Your task to perform on an android device: Open Google Maps and go to "Timeline" Image 0: 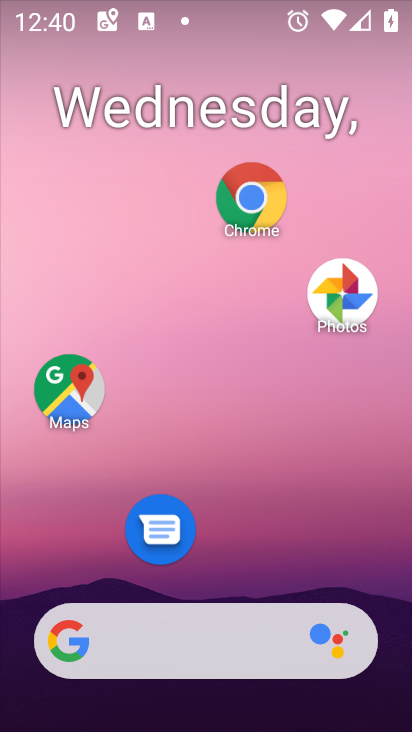
Step 0: drag from (195, 547) to (158, 134)
Your task to perform on an android device: Open Google Maps and go to "Timeline" Image 1: 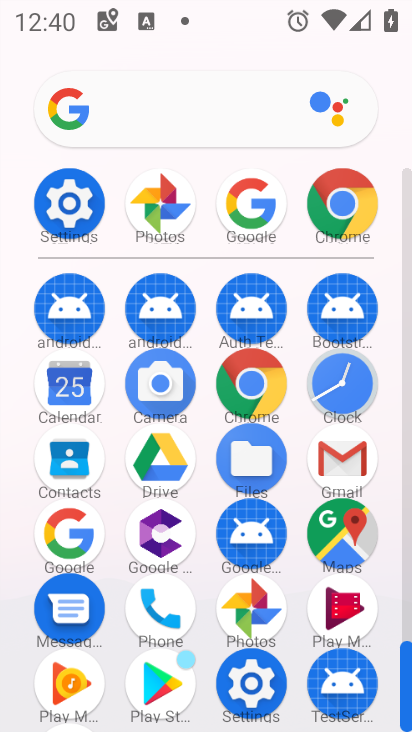
Step 1: click (338, 541)
Your task to perform on an android device: Open Google Maps and go to "Timeline" Image 2: 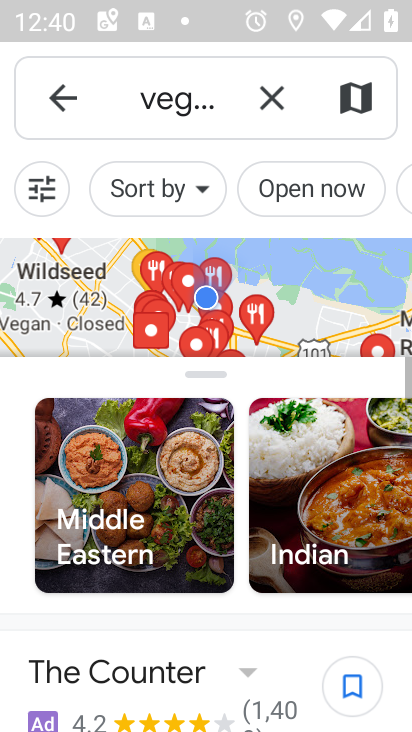
Step 2: click (59, 97)
Your task to perform on an android device: Open Google Maps and go to "Timeline" Image 3: 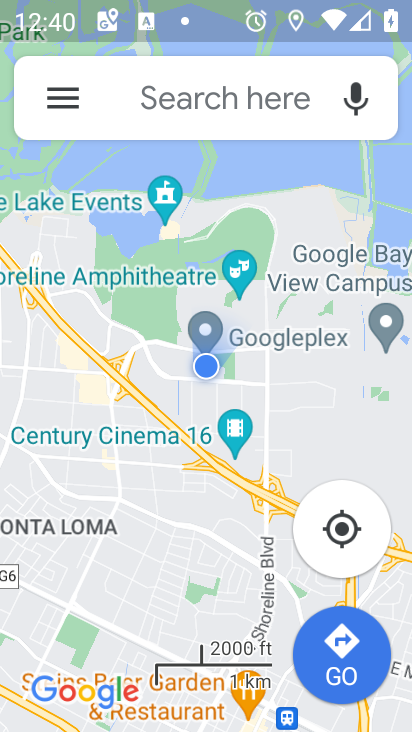
Step 3: click (59, 97)
Your task to perform on an android device: Open Google Maps and go to "Timeline" Image 4: 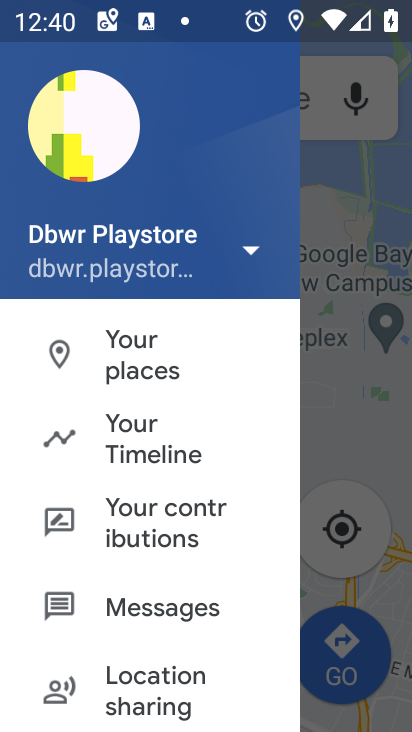
Step 4: click (166, 455)
Your task to perform on an android device: Open Google Maps and go to "Timeline" Image 5: 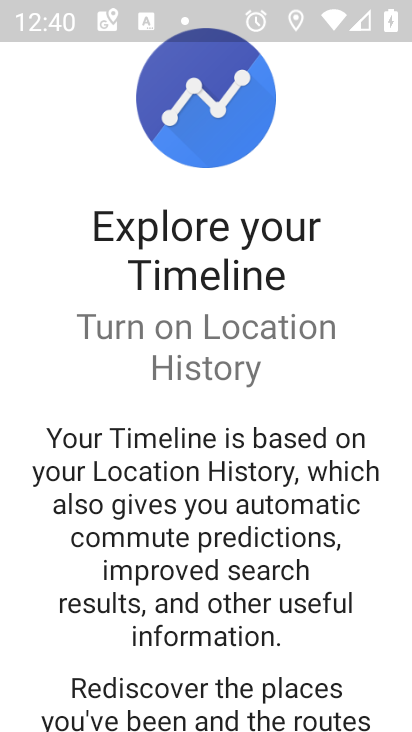
Step 5: drag from (171, 550) to (42, 0)
Your task to perform on an android device: Open Google Maps and go to "Timeline" Image 6: 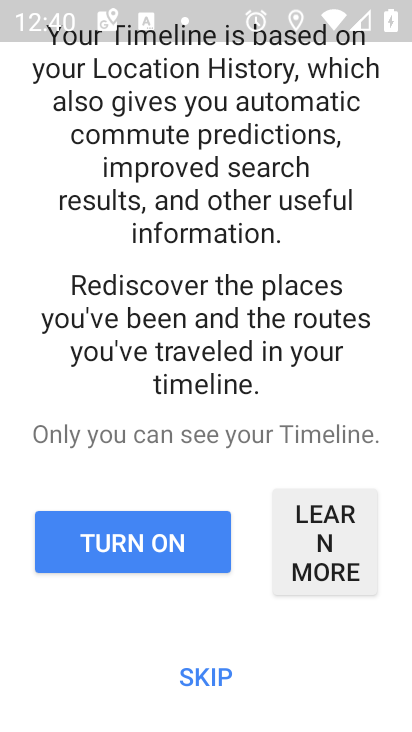
Step 6: click (118, 541)
Your task to perform on an android device: Open Google Maps and go to "Timeline" Image 7: 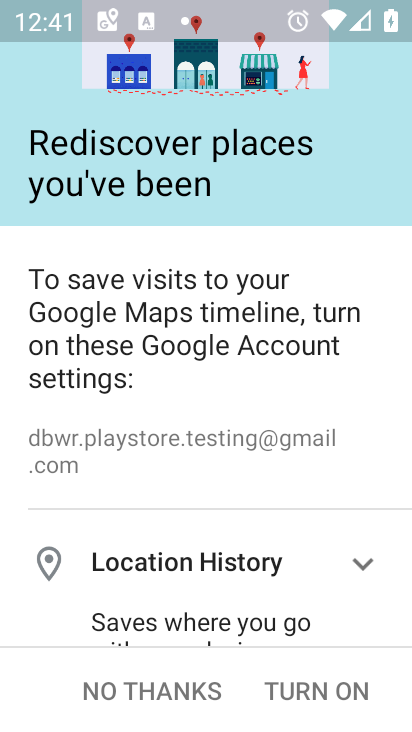
Step 7: click (299, 696)
Your task to perform on an android device: Open Google Maps and go to "Timeline" Image 8: 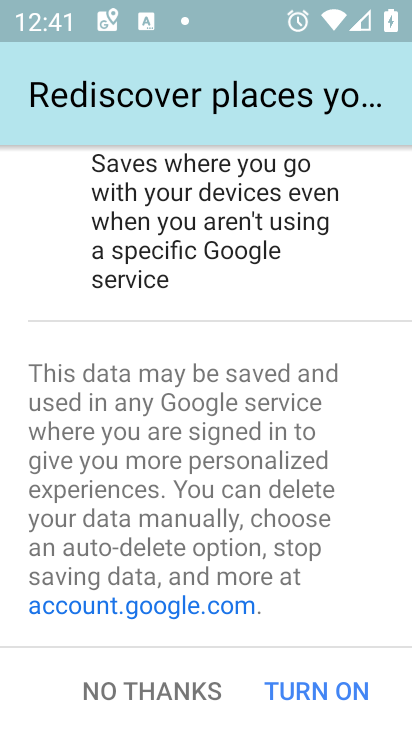
Step 8: click (311, 691)
Your task to perform on an android device: Open Google Maps and go to "Timeline" Image 9: 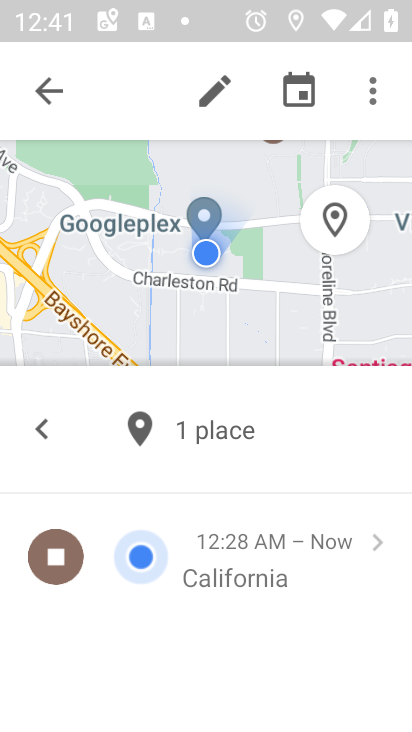
Step 9: task complete